Your task to perform on an android device: Open Google Maps and go to "Timeline" Image 0: 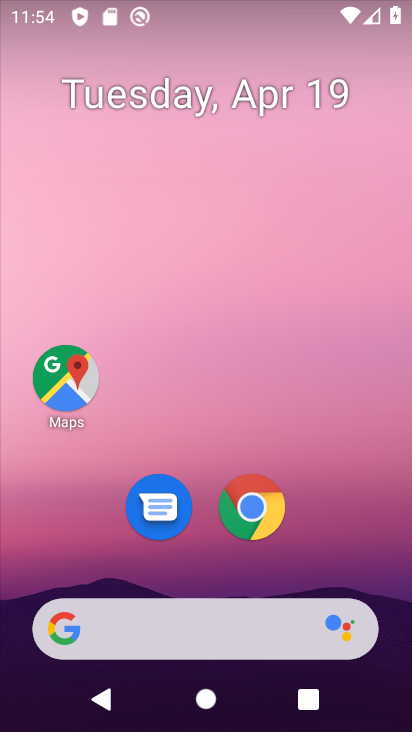
Step 0: drag from (377, 524) to (372, 160)
Your task to perform on an android device: Open Google Maps and go to "Timeline" Image 1: 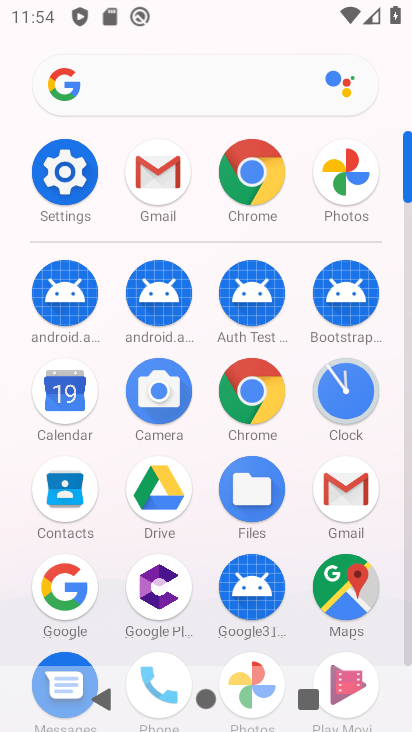
Step 1: click (350, 591)
Your task to perform on an android device: Open Google Maps and go to "Timeline" Image 2: 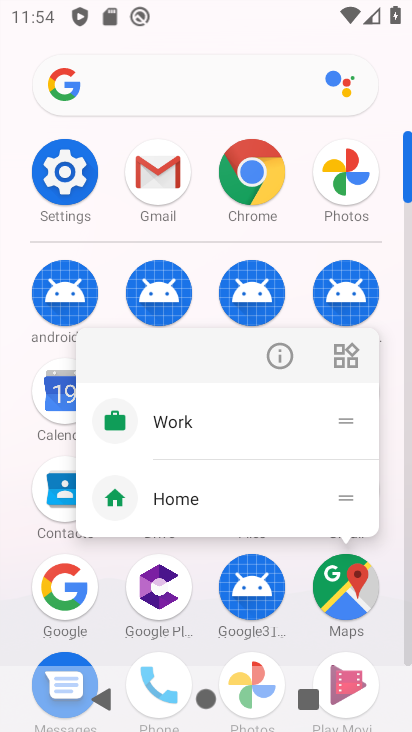
Step 2: click (352, 588)
Your task to perform on an android device: Open Google Maps and go to "Timeline" Image 3: 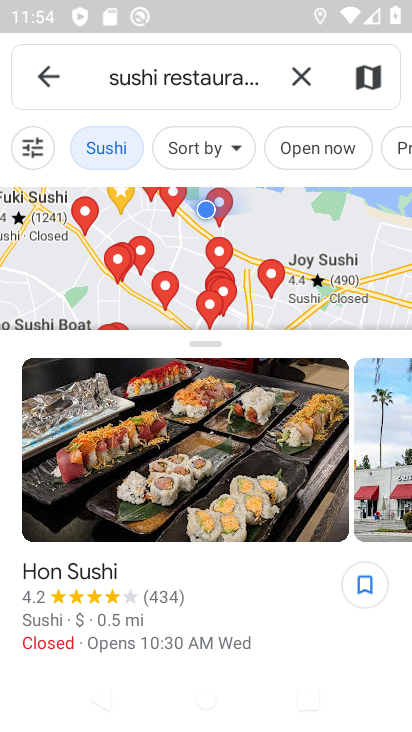
Step 3: click (54, 63)
Your task to perform on an android device: Open Google Maps and go to "Timeline" Image 4: 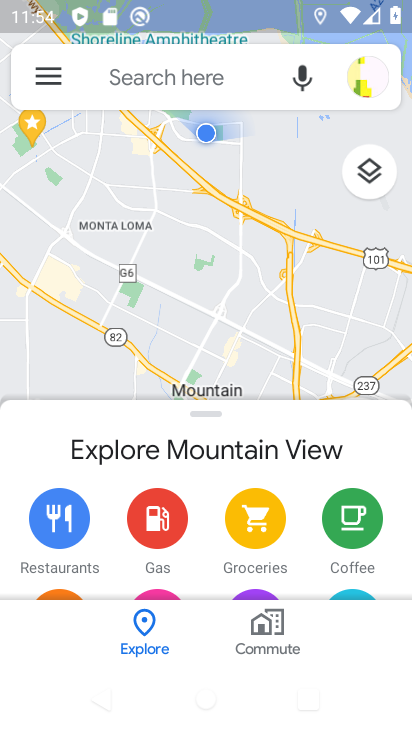
Step 4: click (58, 75)
Your task to perform on an android device: Open Google Maps and go to "Timeline" Image 5: 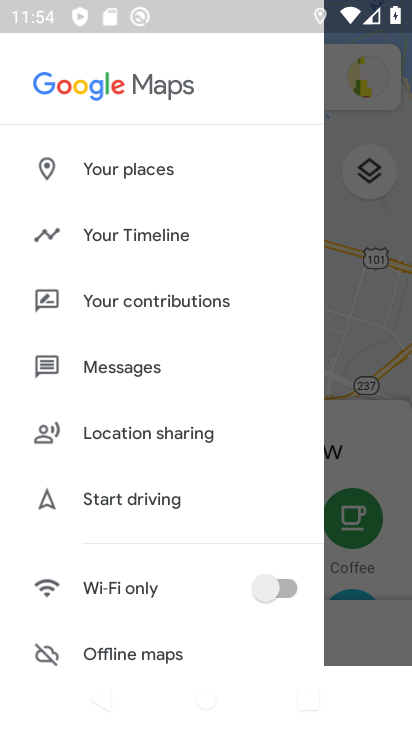
Step 5: click (62, 236)
Your task to perform on an android device: Open Google Maps and go to "Timeline" Image 6: 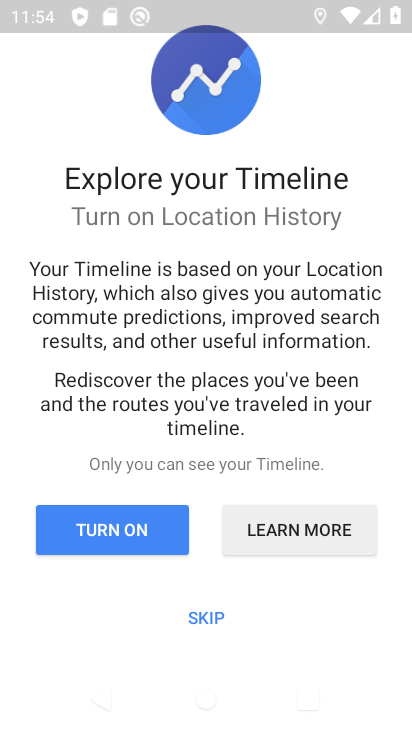
Step 6: click (196, 620)
Your task to perform on an android device: Open Google Maps and go to "Timeline" Image 7: 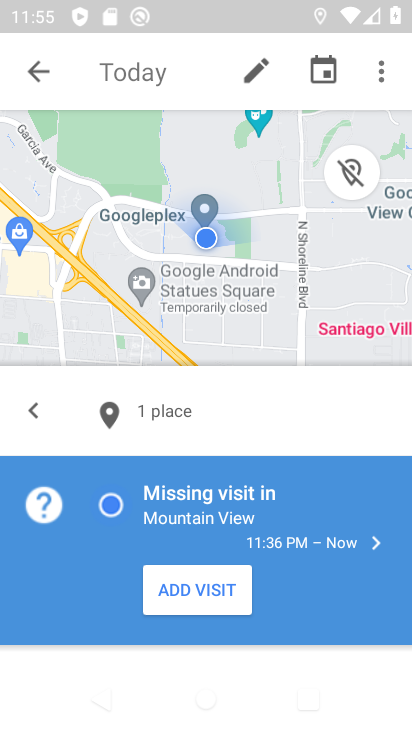
Step 7: task complete